Your task to perform on an android device: open app "Messages" (install if not already installed), go to login, and select forgot password Image 0: 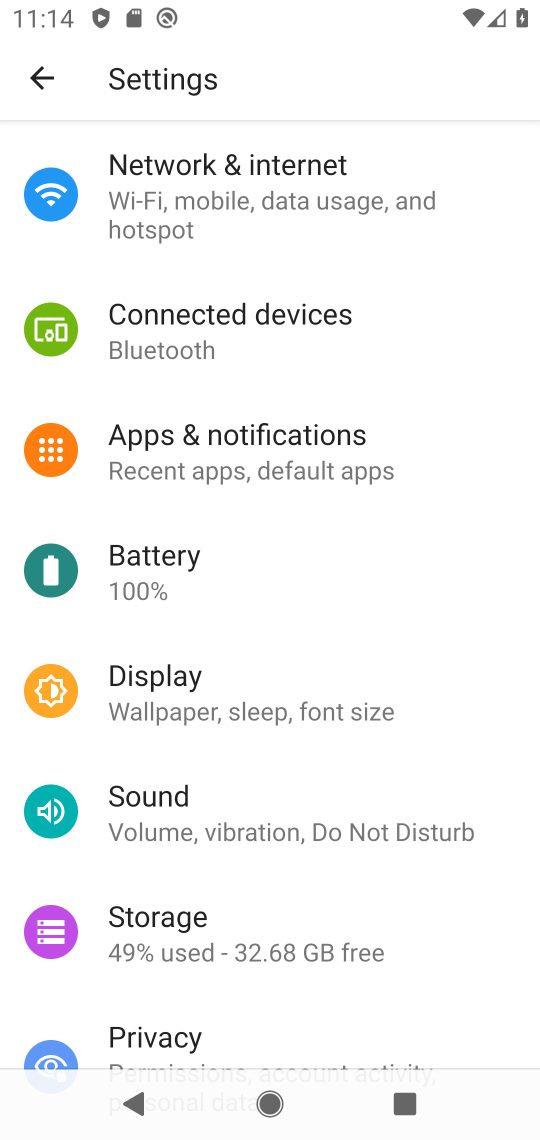
Step 0: press home button
Your task to perform on an android device: open app "Messages" (install if not already installed), go to login, and select forgot password Image 1: 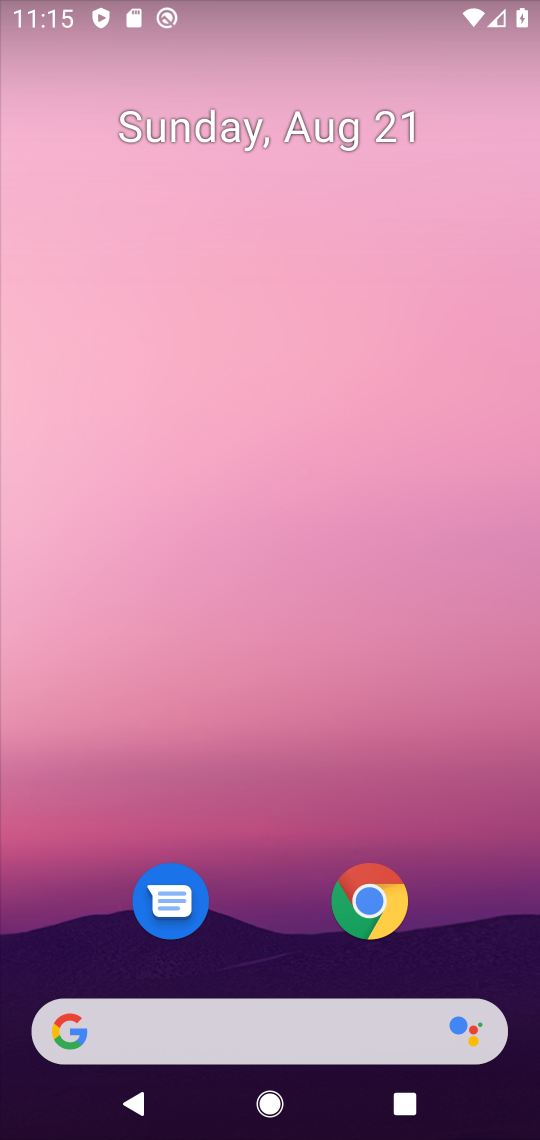
Step 1: click (160, 914)
Your task to perform on an android device: open app "Messages" (install if not already installed), go to login, and select forgot password Image 2: 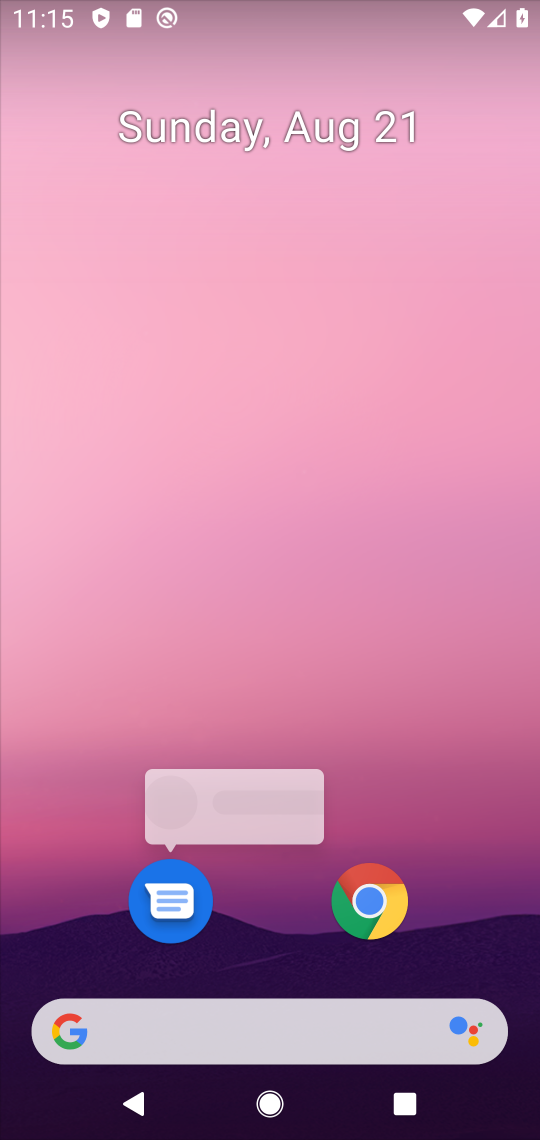
Step 2: task complete